Your task to perform on an android device: Search for bose quietcomfort 35 on walmart, select the first entry, and add it to the cart. Image 0: 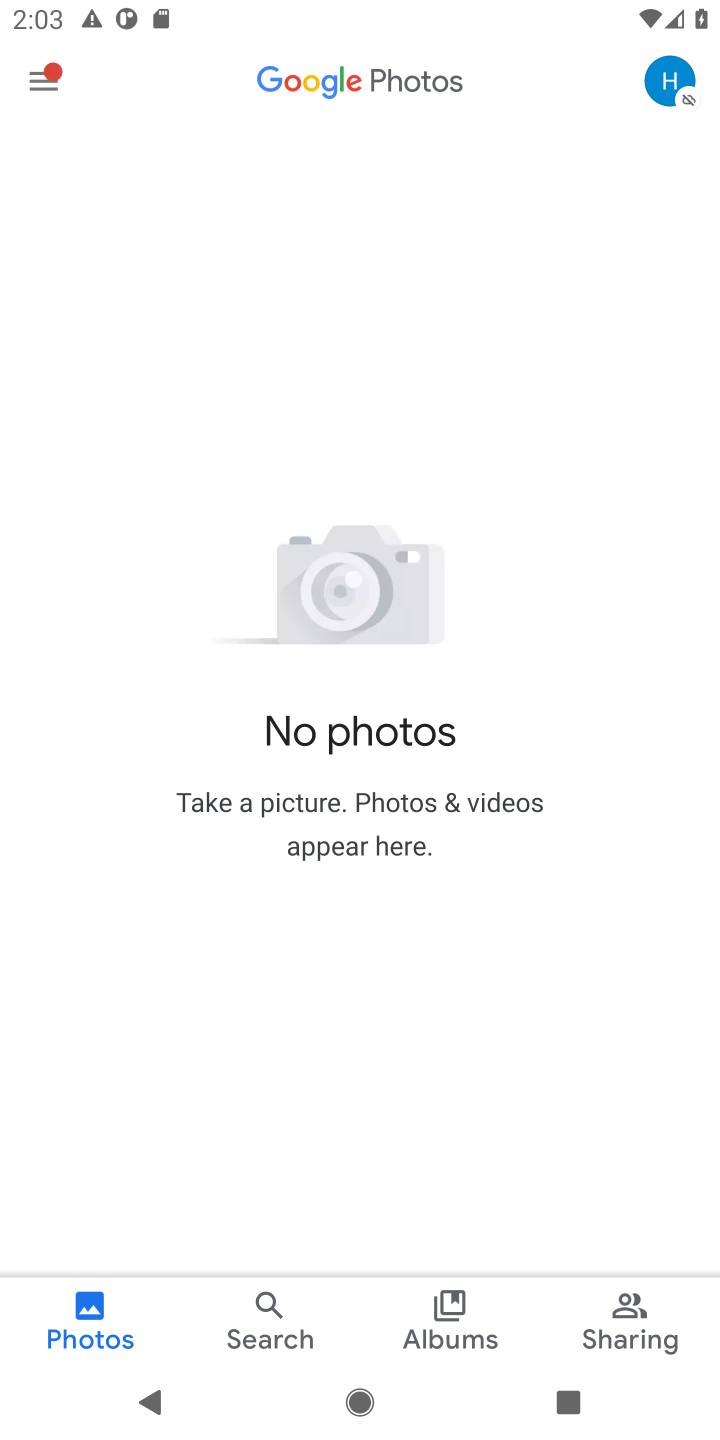
Step 0: press home button
Your task to perform on an android device: Search for bose quietcomfort 35 on walmart, select the first entry, and add it to the cart. Image 1: 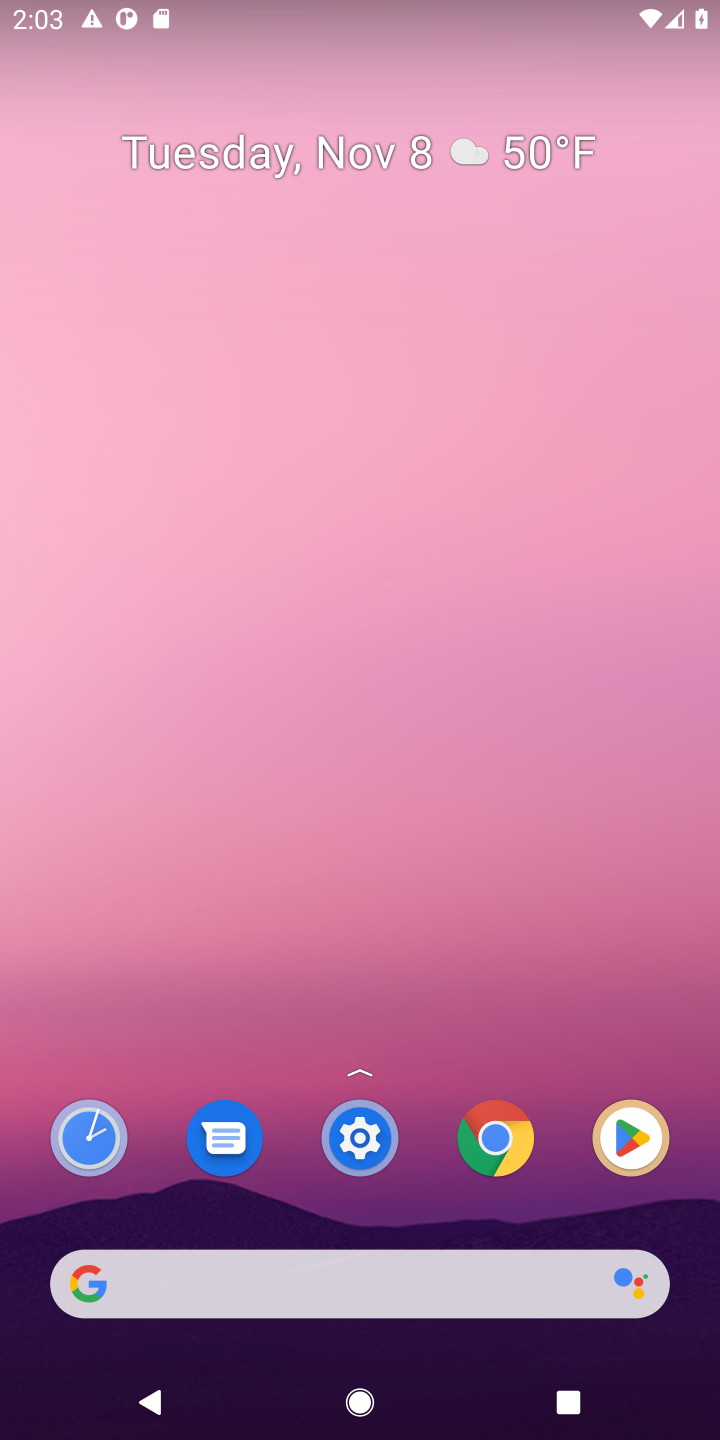
Step 1: click (383, 1277)
Your task to perform on an android device: Search for bose quietcomfort 35 on walmart, select the first entry, and add it to the cart. Image 2: 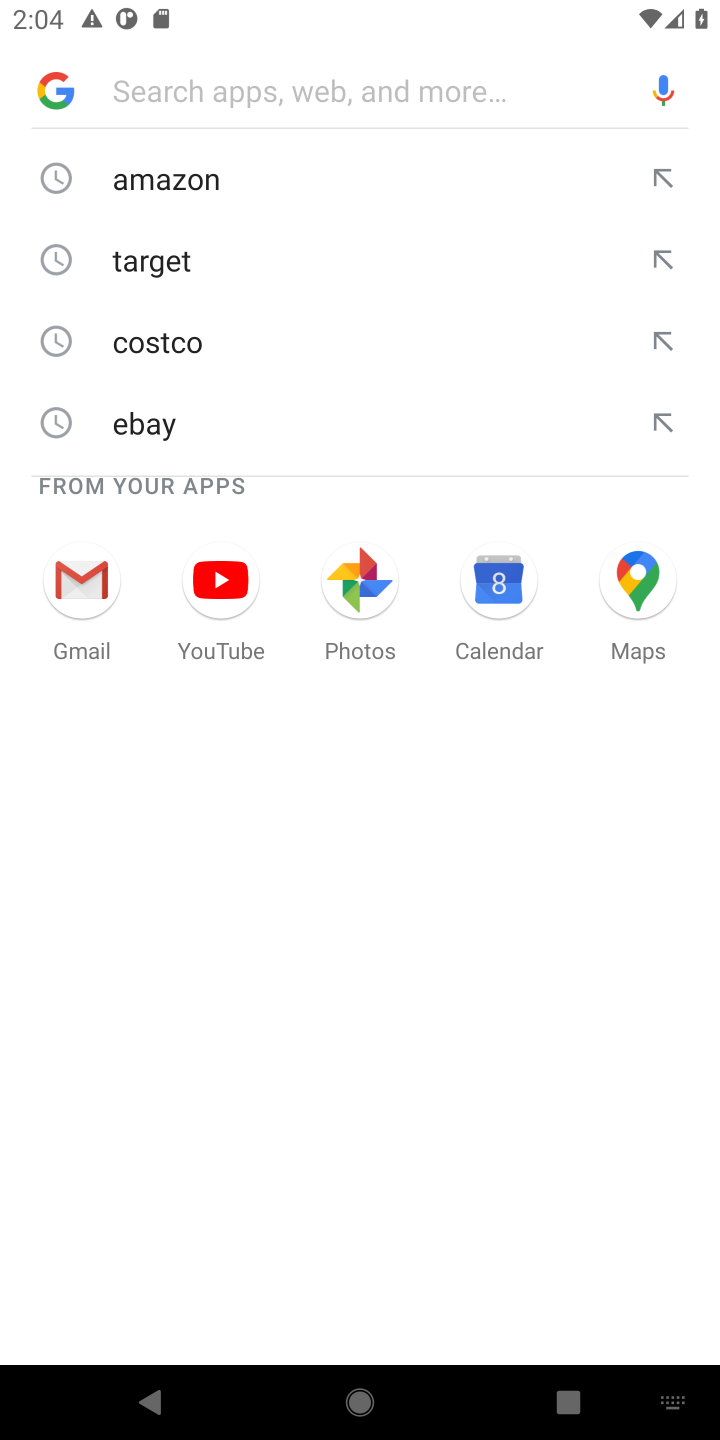
Step 2: type "walmart;"
Your task to perform on an android device: Search for bose quietcomfort 35 on walmart, select the first entry, and add it to the cart. Image 3: 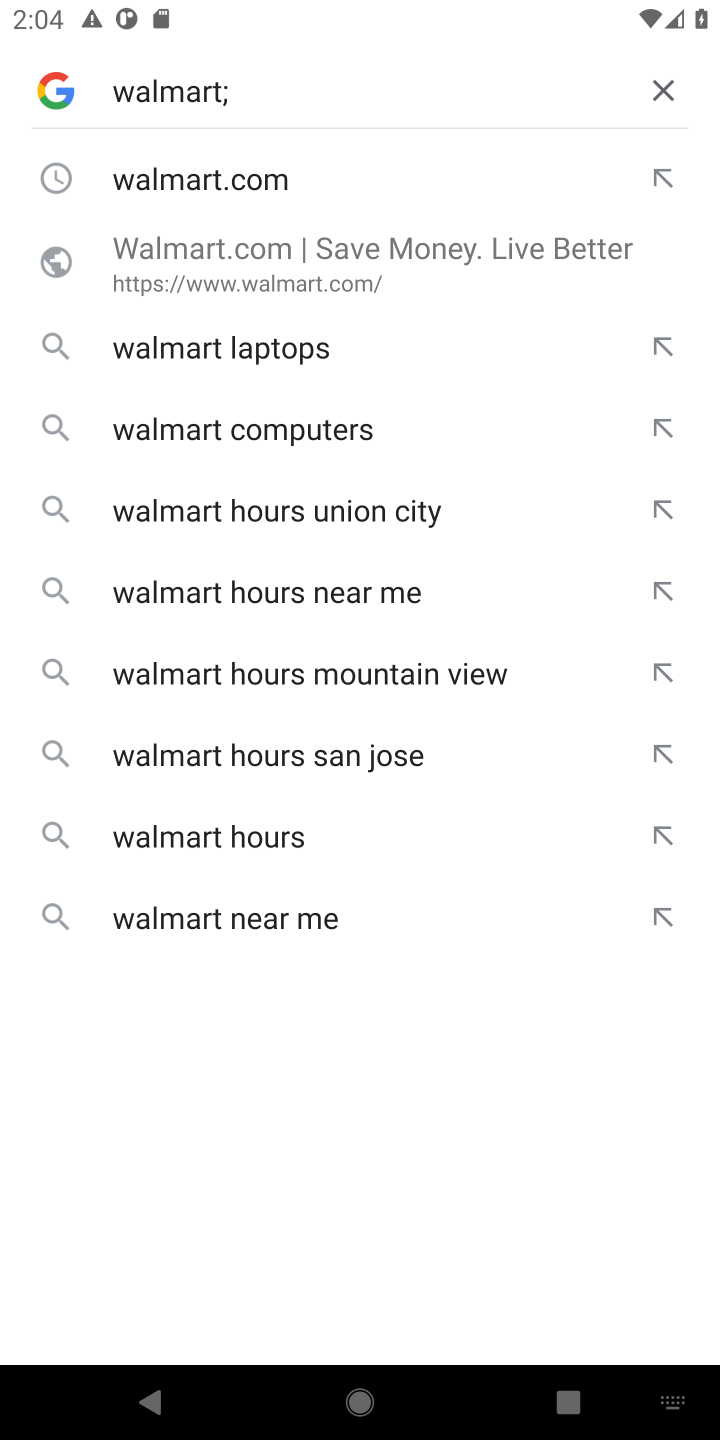
Step 3: click (375, 157)
Your task to perform on an android device: Search for bose quietcomfort 35 on walmart, select the first entry, and add it to the cart. Image 4: 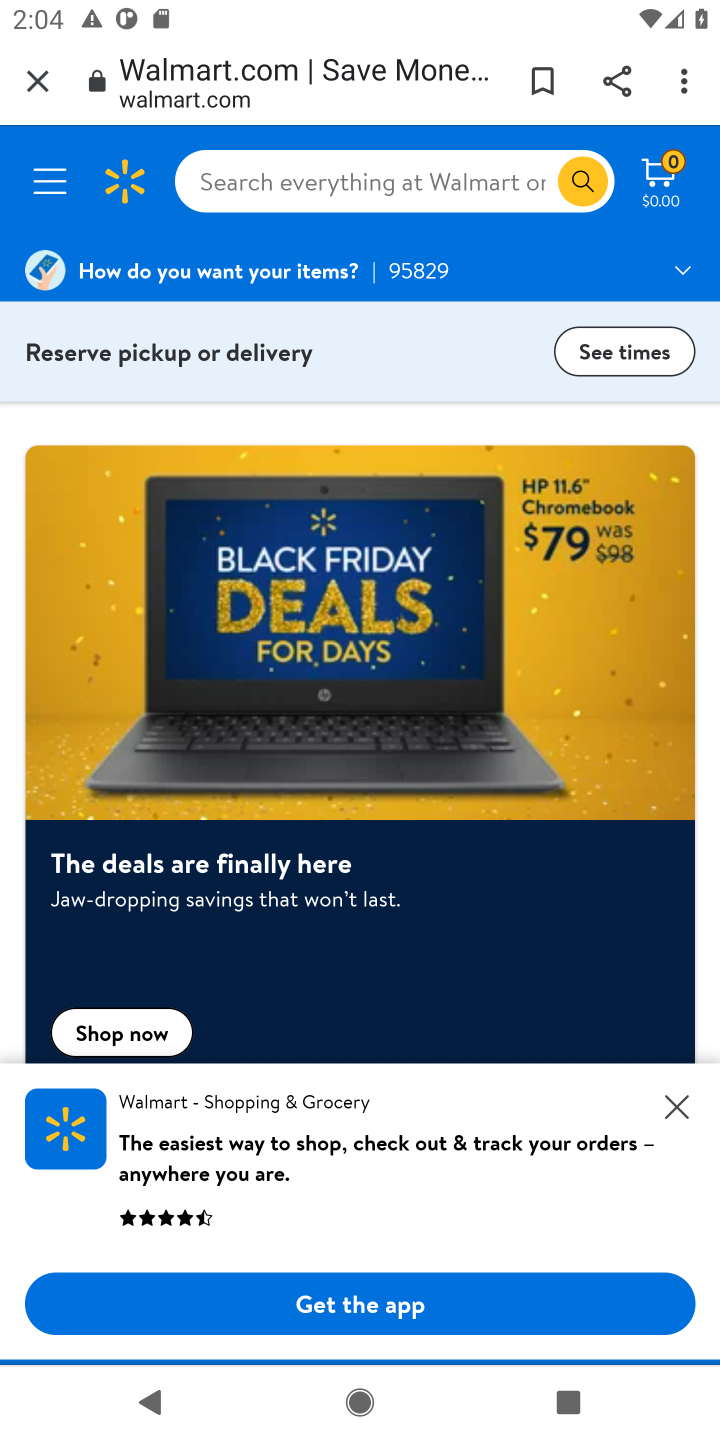
Step 4: click (375, 157)
Your task to perform on an android device: Search for bose quietcomfort 35 on walmart, select the first entry, and add it to the cart. Image 5: 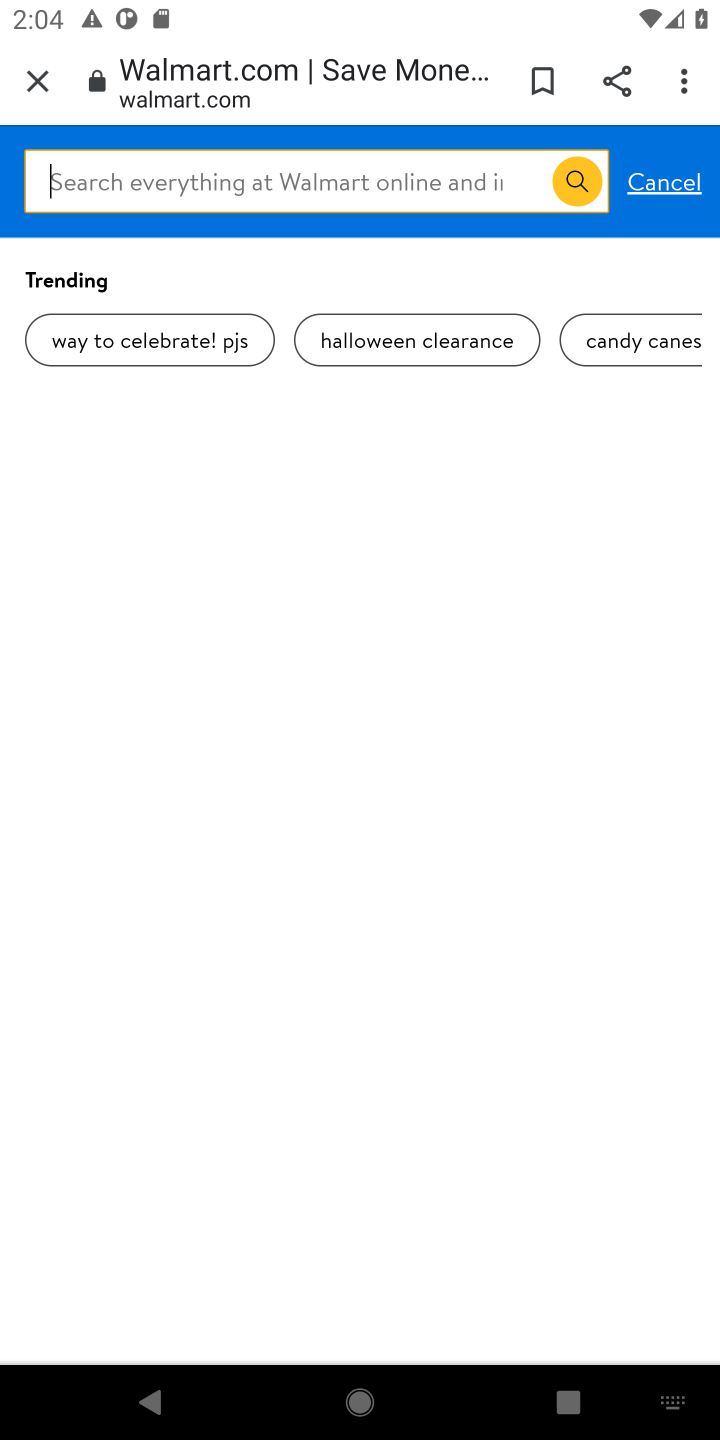
Step 5: type "quientcomfort 35"
Your task to perform on an android device: Search for bose quietcomfort 35 on walmart, select the first entry, and add it to the cart. Image 6: 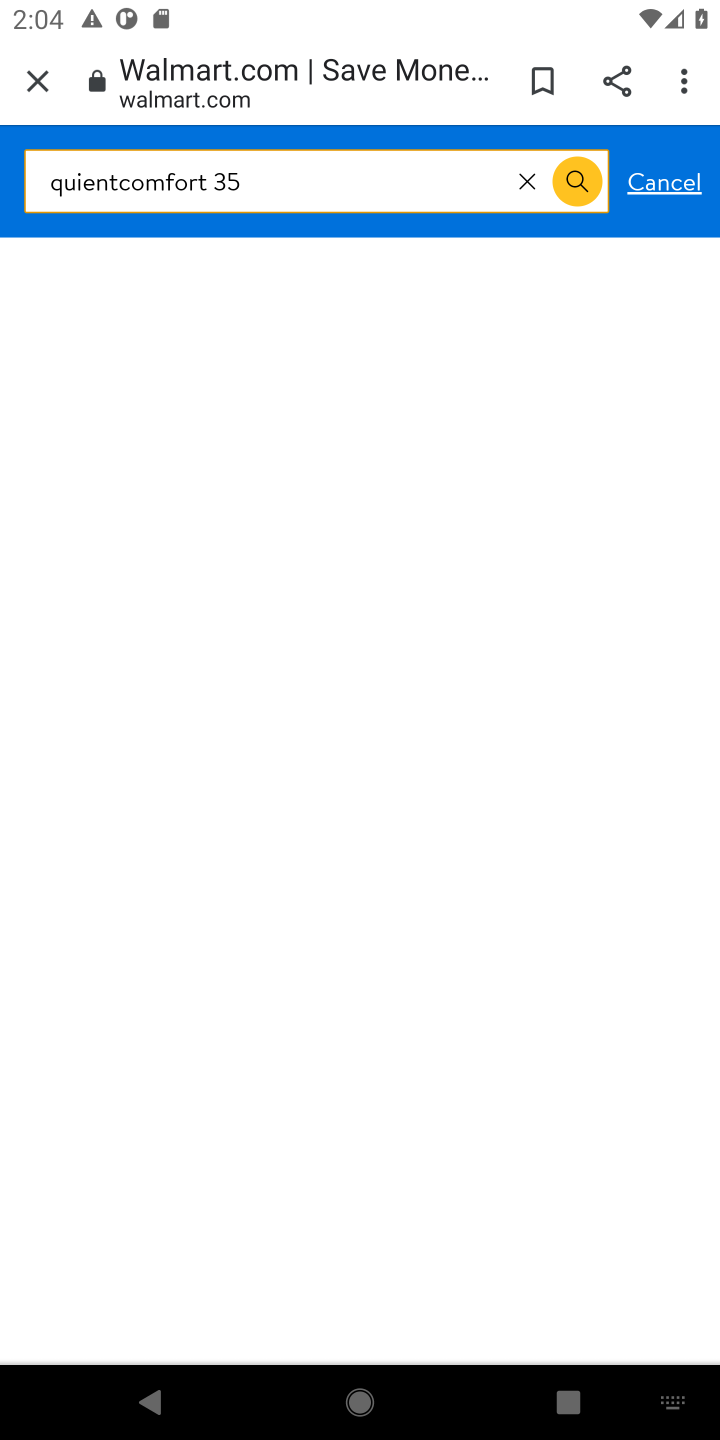
Step 6: task complete